Your task to perform on an android device: toggle notifications settings in the gmail app Image 0: 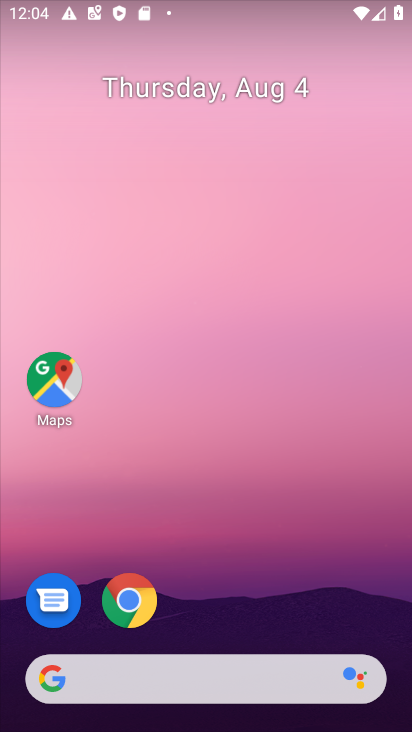
Step 0: drag from (185, 661) to (327, 49)
Your task to perform on an android device: toggle notifications settings in the gmail app Image 1: 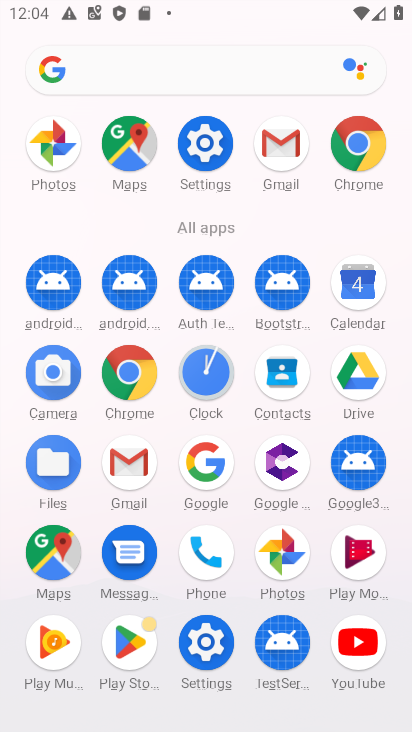
Step 1: click (278, 152)
Your task to perform on an android device: toggle notifications settings in the gmail app Image 2: 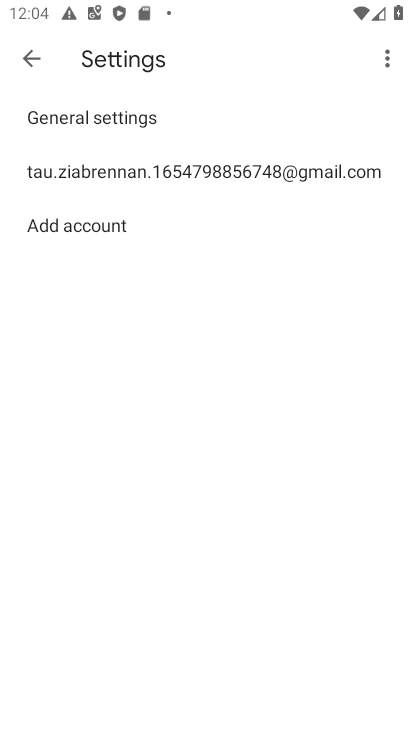
Step 2: click (213, 172)
Your task to perform on an android device: toggle notifications settings in the gmail app Image 3: 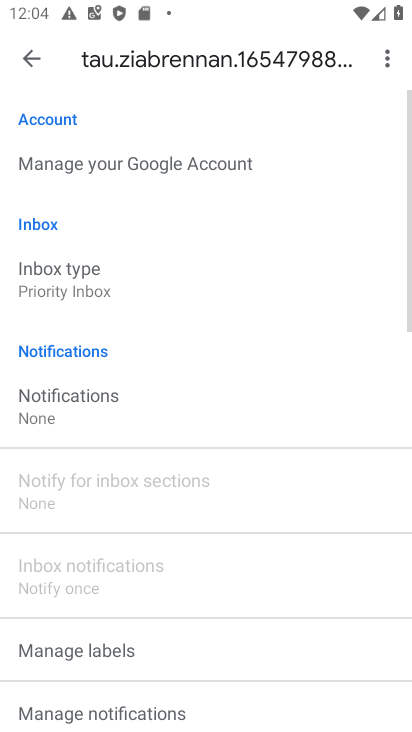
Step 3: click (49, 412)
Your task to perform on an android device: toggle notifications settings in the gmail app Image 4: 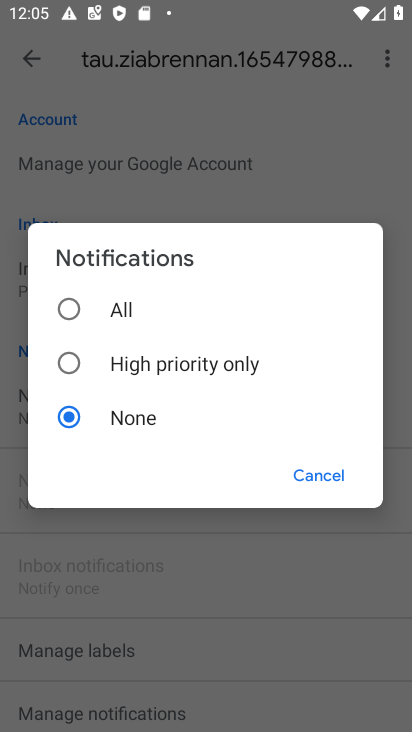
Step 4: click (66, 309)
Your task to perform on an android device: toggle notifications settings in the gmail app Image 5: 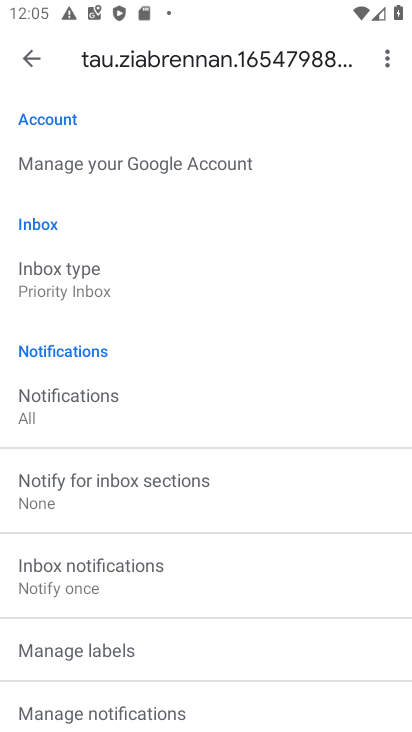
Step 5: task complete